Your task to perform on an android device: change keyboard looks Image 0: 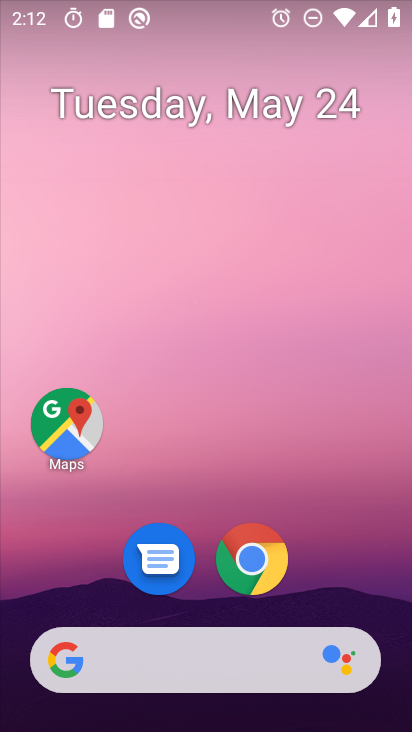
Step 0: drag from (391, 686) to (385, 68)
Your task to perform on an android device: change keyboard looks Image 1: 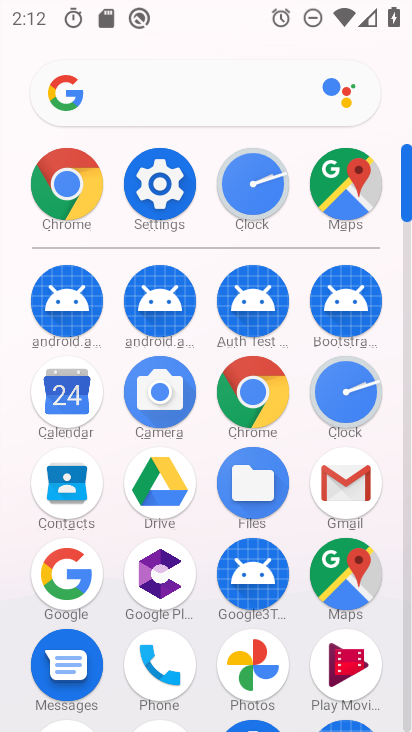
Step 1: click (159, 173)
Your task to perform on an android device: change keyboard looks Image 2: 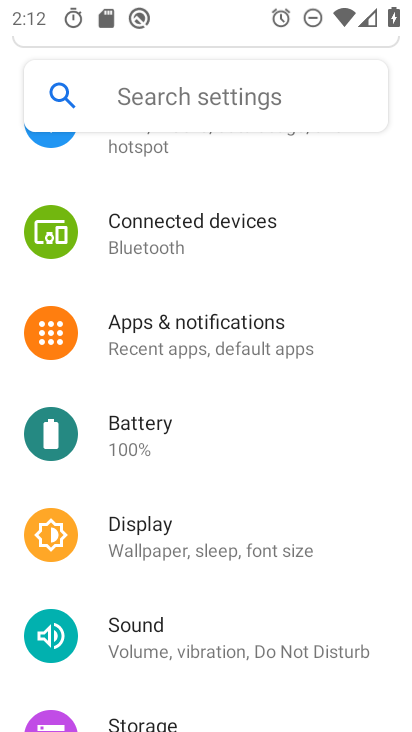
Step 2: drag from (317, 708) to (300, 59)
Your task to perform on an android device: change keyboard looks Image 3: 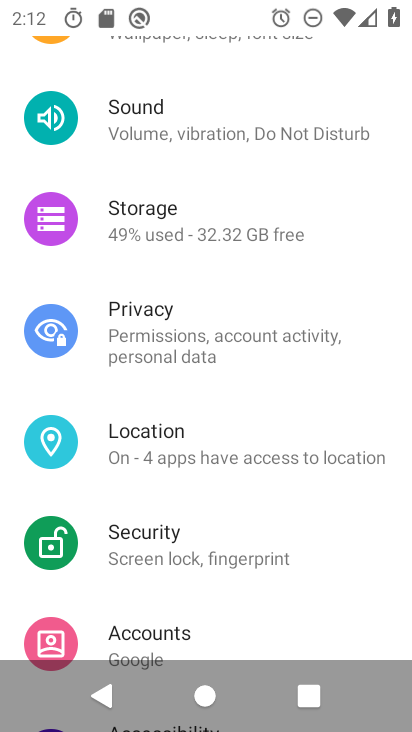
Step 3: drag from (287, 634) to (271, 171)
Your task to perform on an android device: change keyboard looks Image 4: 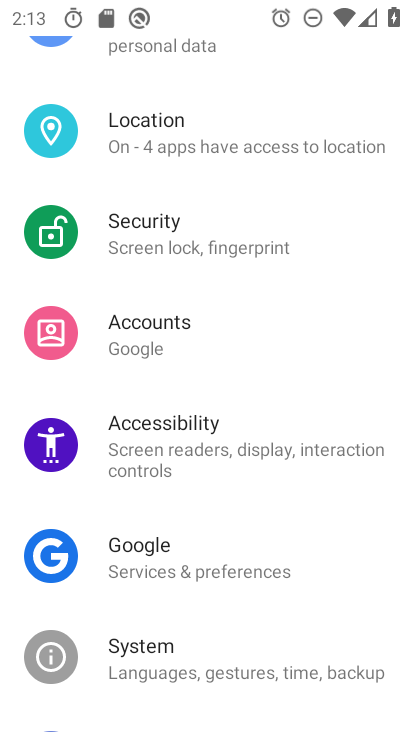
Step 4: click (124, 653)
Your task to perform on an android device: change keyboard looks Image 5: 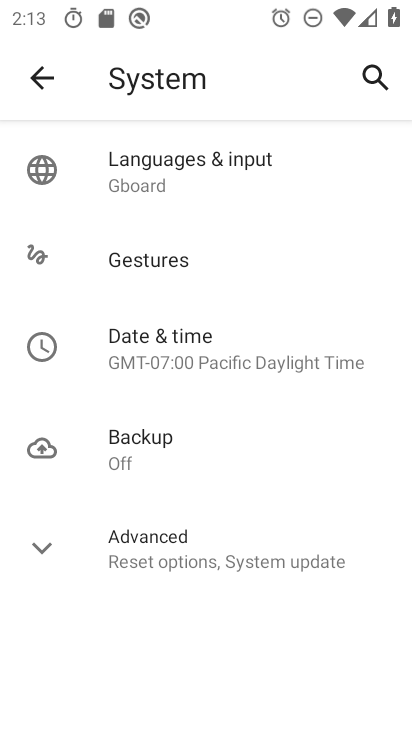
Step 5: click (144, 166)
Your task to perform on an android device: change keyboard looks Image 6: 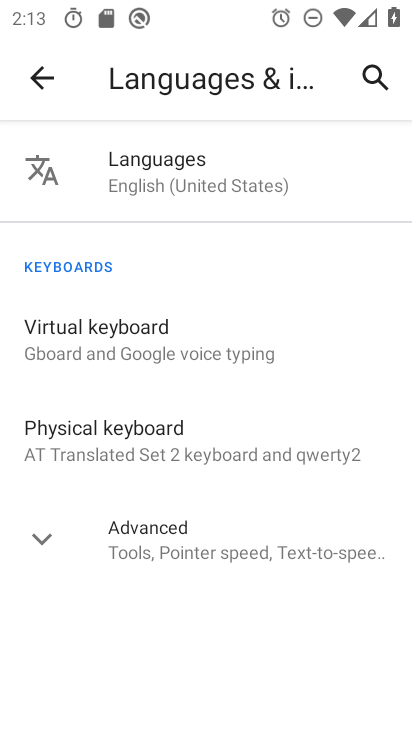
Step 6: click (96, 347)
Your task to perform on an android device: change keyboard looks Image 7: 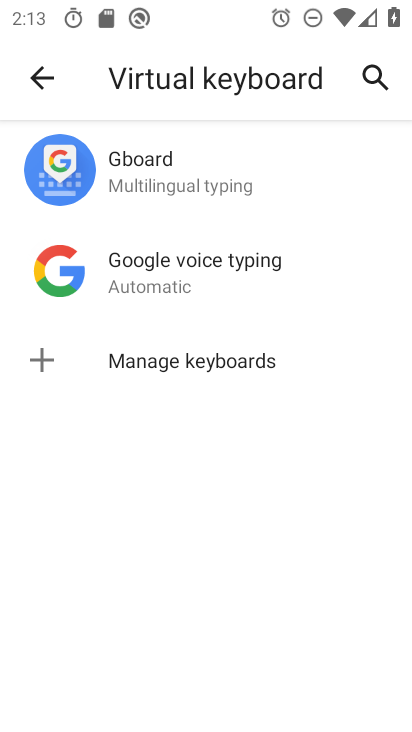
Step 7: click (153, 150)
Your task to perform on an android device: change keyboard looks Image 8: 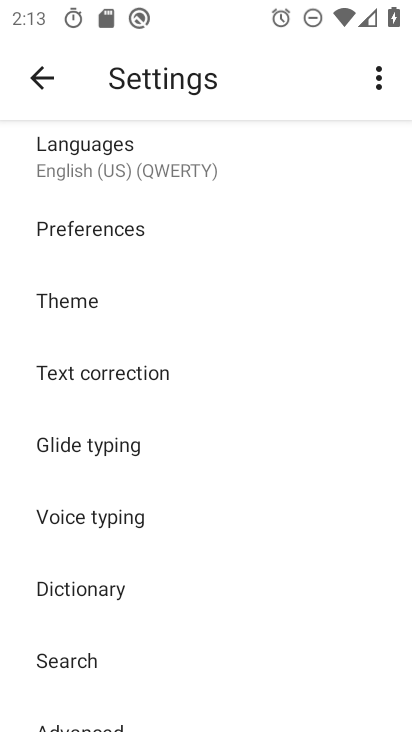
Step 8: click (59, 304)
Your task to perform on an android device: change keyboard looks Image 9: 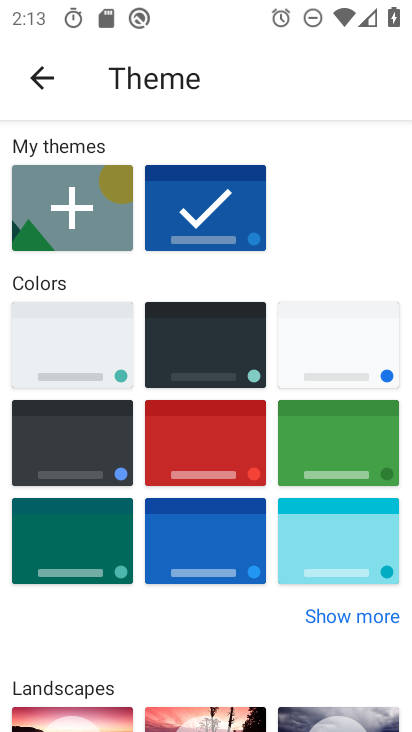
Step 9: click (200, 550)
Your task to perform on an android device: change keyboard looks Image 10: 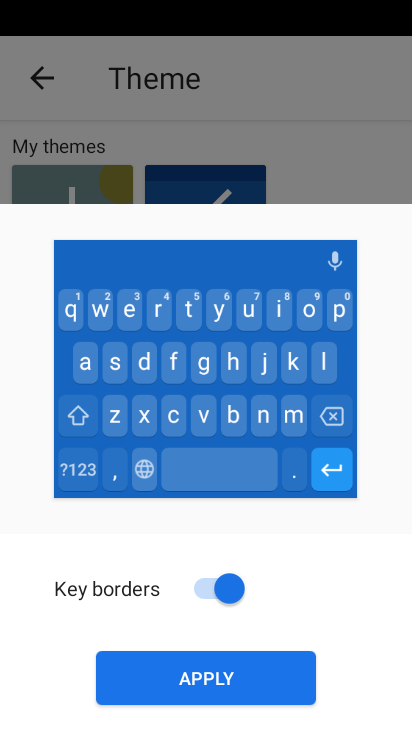
Step 10: click (220, 586)
Your task to perform on an android device: change keyboard looks Image 11: 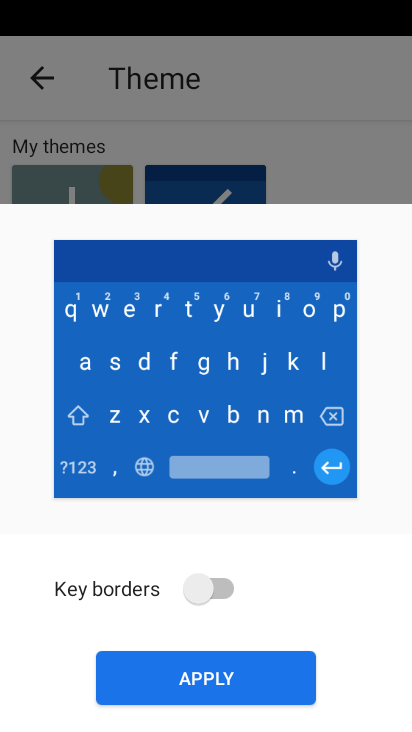
Step 11: click (220, 586)
Your task to perform on an android device: change keyboard looks Image 12: 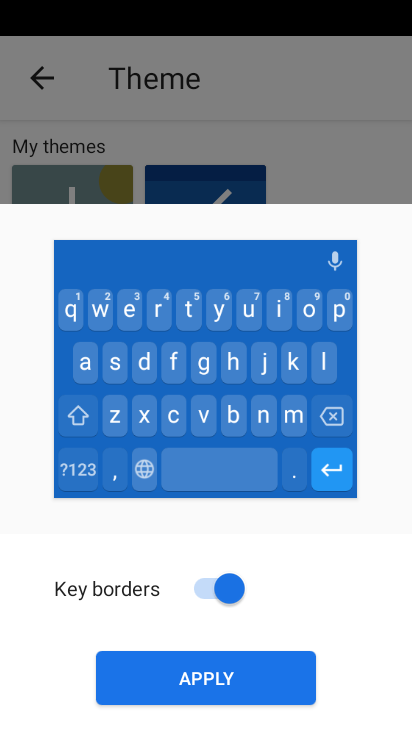
Step 12: click (242, 671)
Your task to perform on an android device: change keyboard looks Image 13: 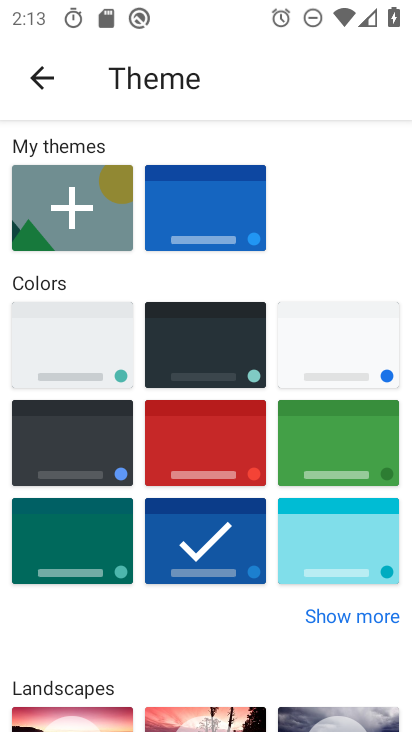
Step 13: task complete